Your task to perform on an android device: turn pop-ups off in chrome Image 0: 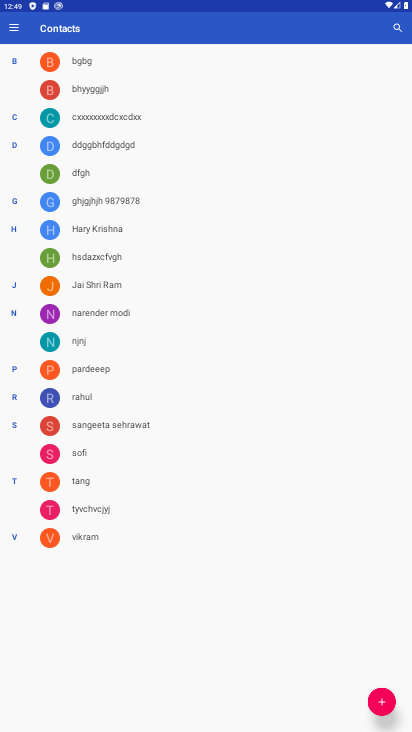
Step 0: press home button
Your task to perform on an android device: turn pop-ups off in chrome Image 1: 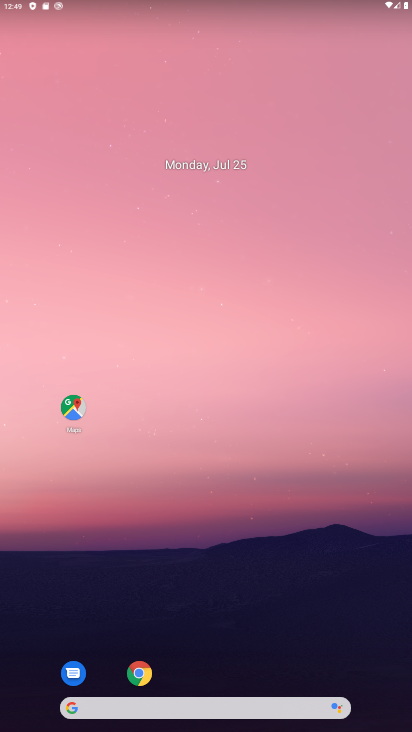
Step 1: click (151, 674)
Your task to perform on an android device: turn pop-ups off in chrome Image 2: 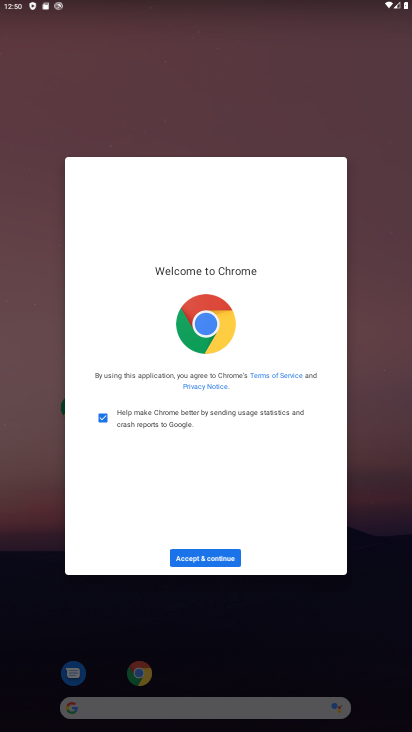
Step 2: click (194, 561)
Your task to perform on an android device: turn pop-ups off in chrome Image 3: 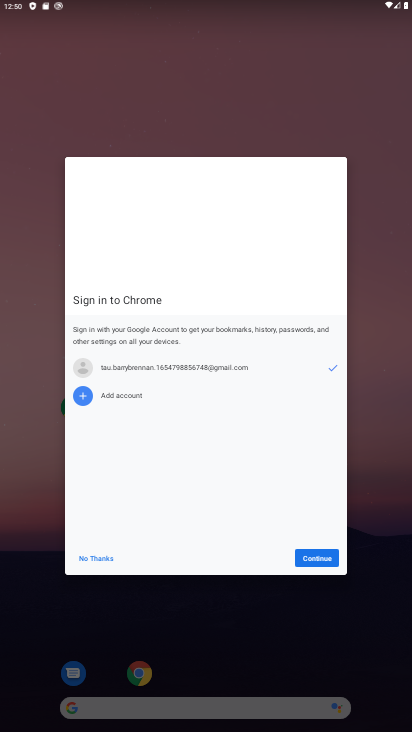
Step 3: click (318, 557)
Your task to perform on an android device: turn pop-ups off in chrome Image 4: 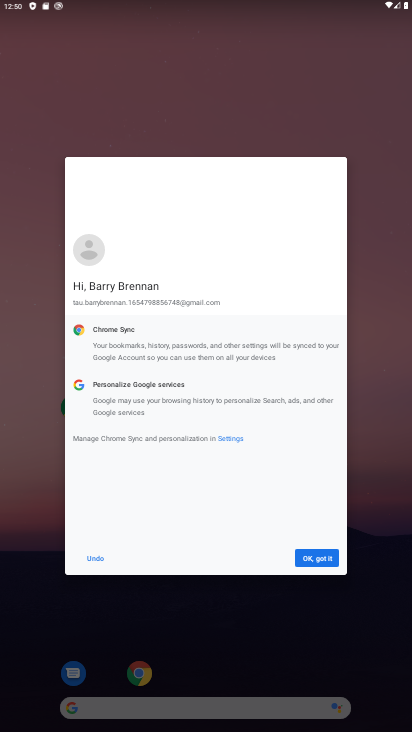
Step 4: click (319, 557)
Your task to perform on an android device: turn pop-ups off in chrome Image 5: 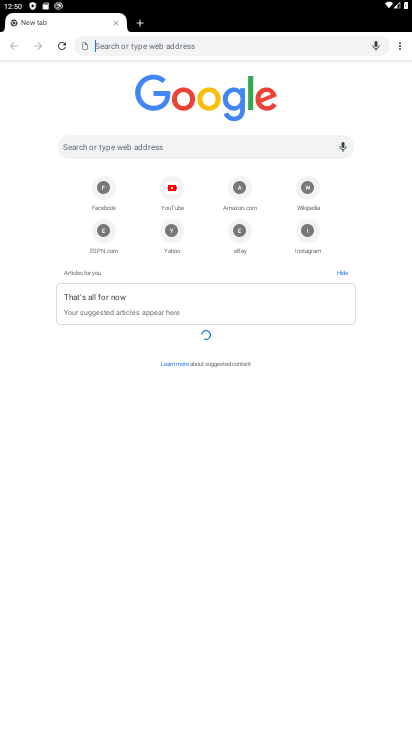
Step 5: drag from (402, 47) to (331, 210)
Your task to perform on an android device: turn pop-ups off in chrome Image 6: 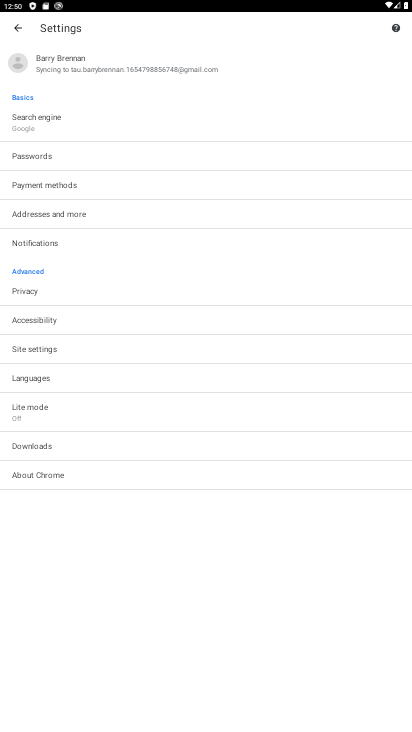
Step 6: click (64, 348)
Your task to perform on an android device: turn pop-ups off in chrome Image 7: 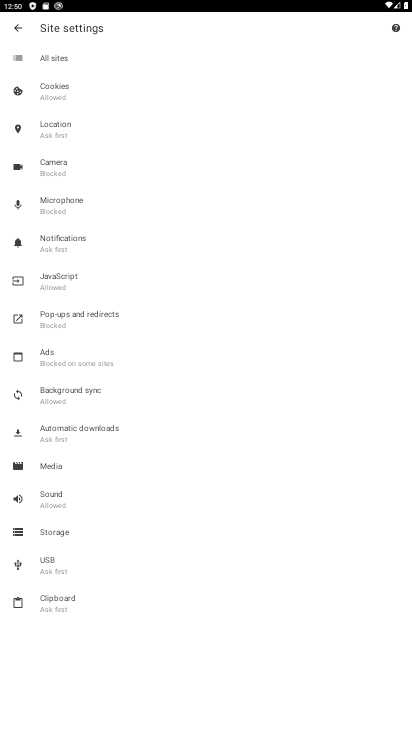
Step 7: click (76, 329)
Your task to perform on an android device: turn pop-ups off in chrome Image 8: 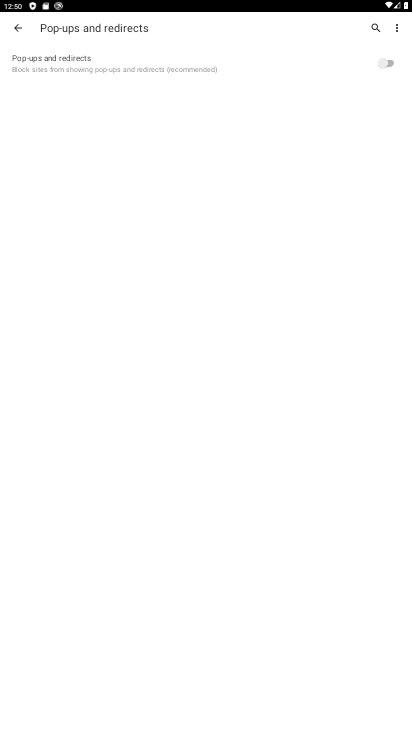
Step 8: task complete